Your task to perform on an android device: See recent photos Image 0: 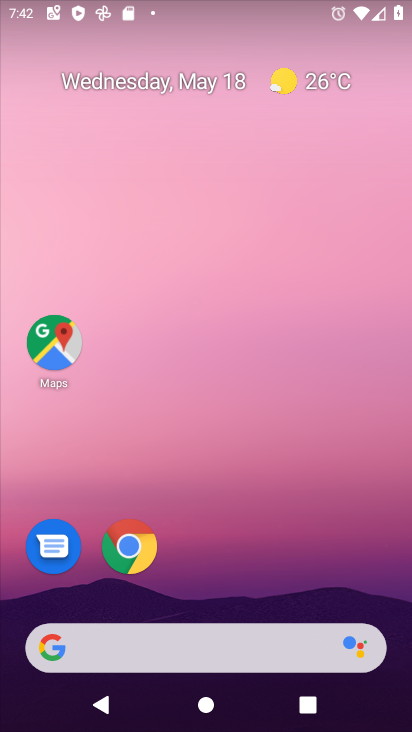
Step 0: drag from (379, 610) to (325, 133)
Your task to perform on an android device: See recent photos Image 1: 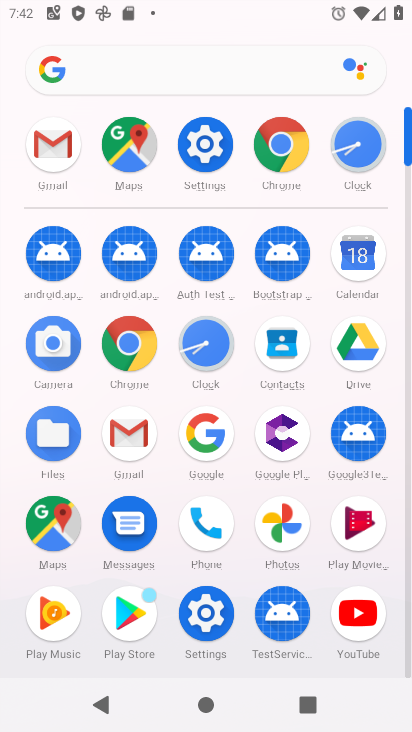
Step 1: click (280, 519)
Your task to perform on an android device: See recent photos Image 2: 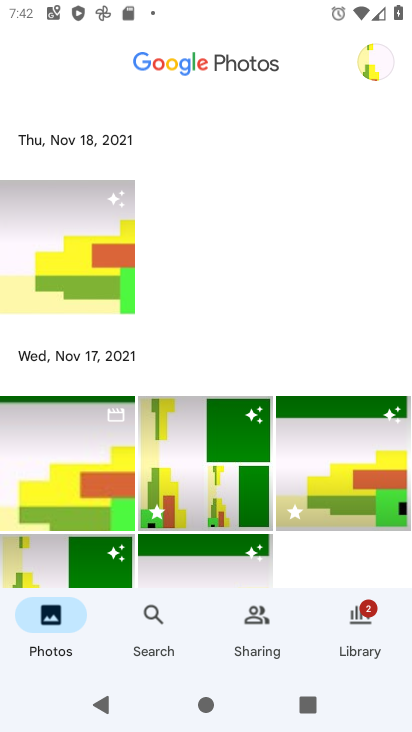
Step 2: click (111, 226)
Your task to perform on an android device: See recent photos Image 3: 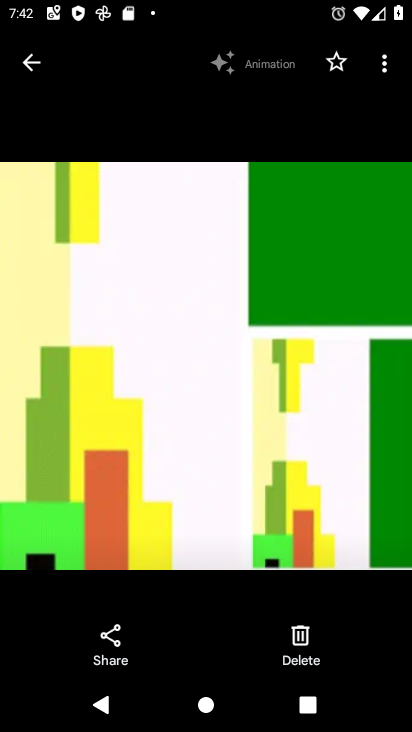
Step 3: task complete